Your task to perform on an android device: Is it going to rain this weekend? Image 0: 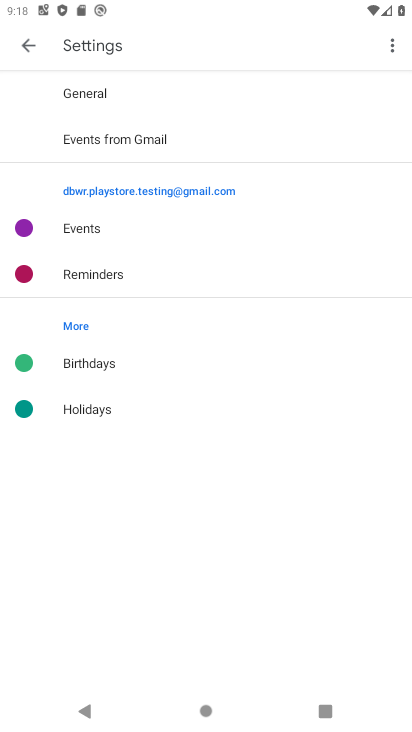
Step 0: press home button
Your task to perform on an android device: Is it going to rain this weekend? Image 1: 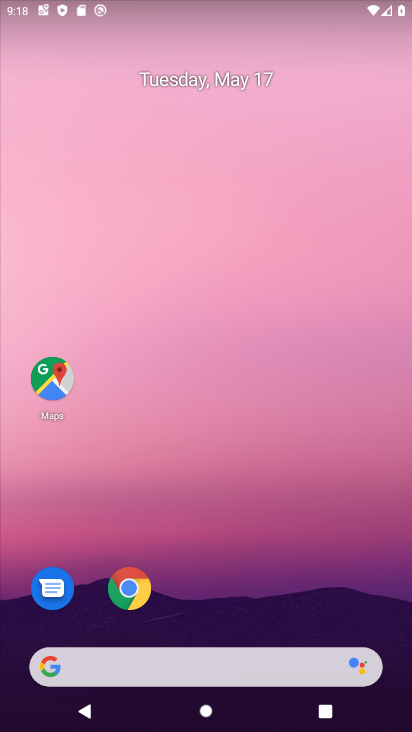
Step 1: click (225, 660)
Your task to perform on an android device: Is it going to rain this weekend? Image 2: 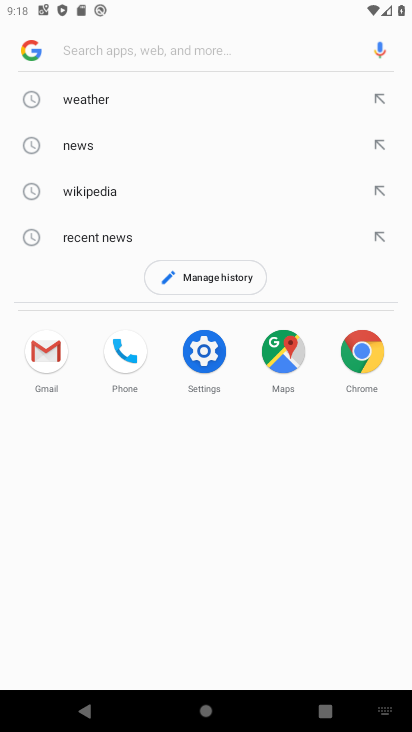
Step 2: click (104, 96)
Your task to perform on an android device: Is it going to rain this weekend? Image 3: 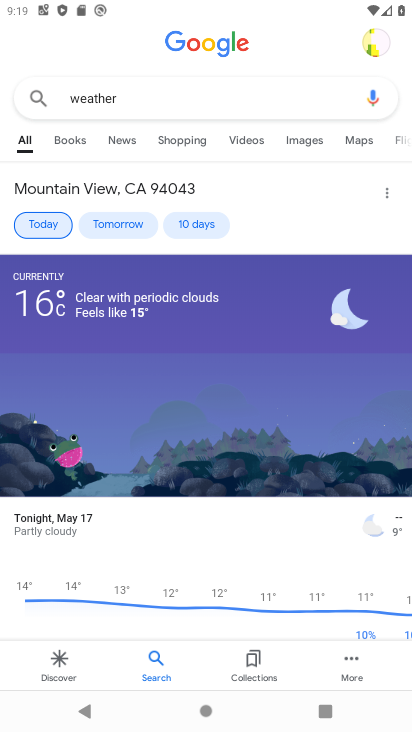
Step 3: click (125, 228)
Your task to perform on an android device: Is it going to rain this weekend? Image 4: 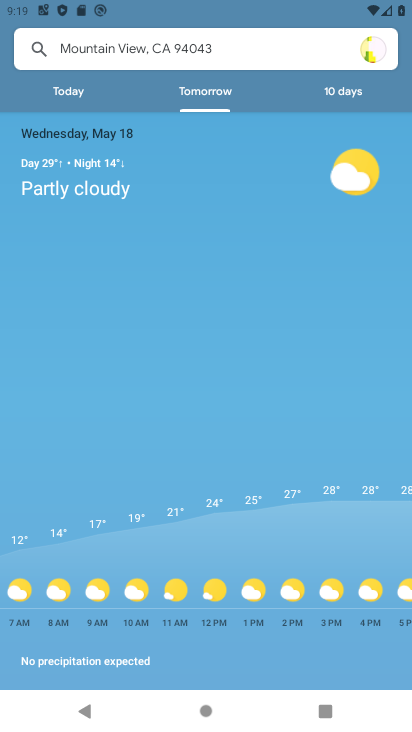
Step 4: click (320, 94)
Your task to perform on an android device: Is it going to rain this weekend? Image 5: 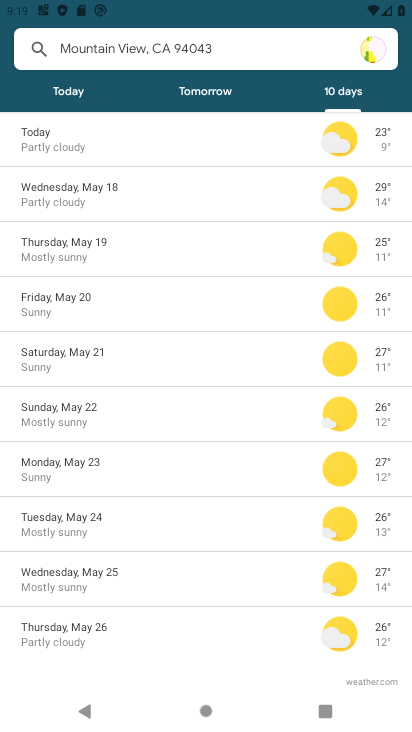
Step 5: task complete